Your task to perform on an android device: Clear all items from cart on ebay. Add "razer thresher" to the cart on ebay, then select checkout. Image 0: 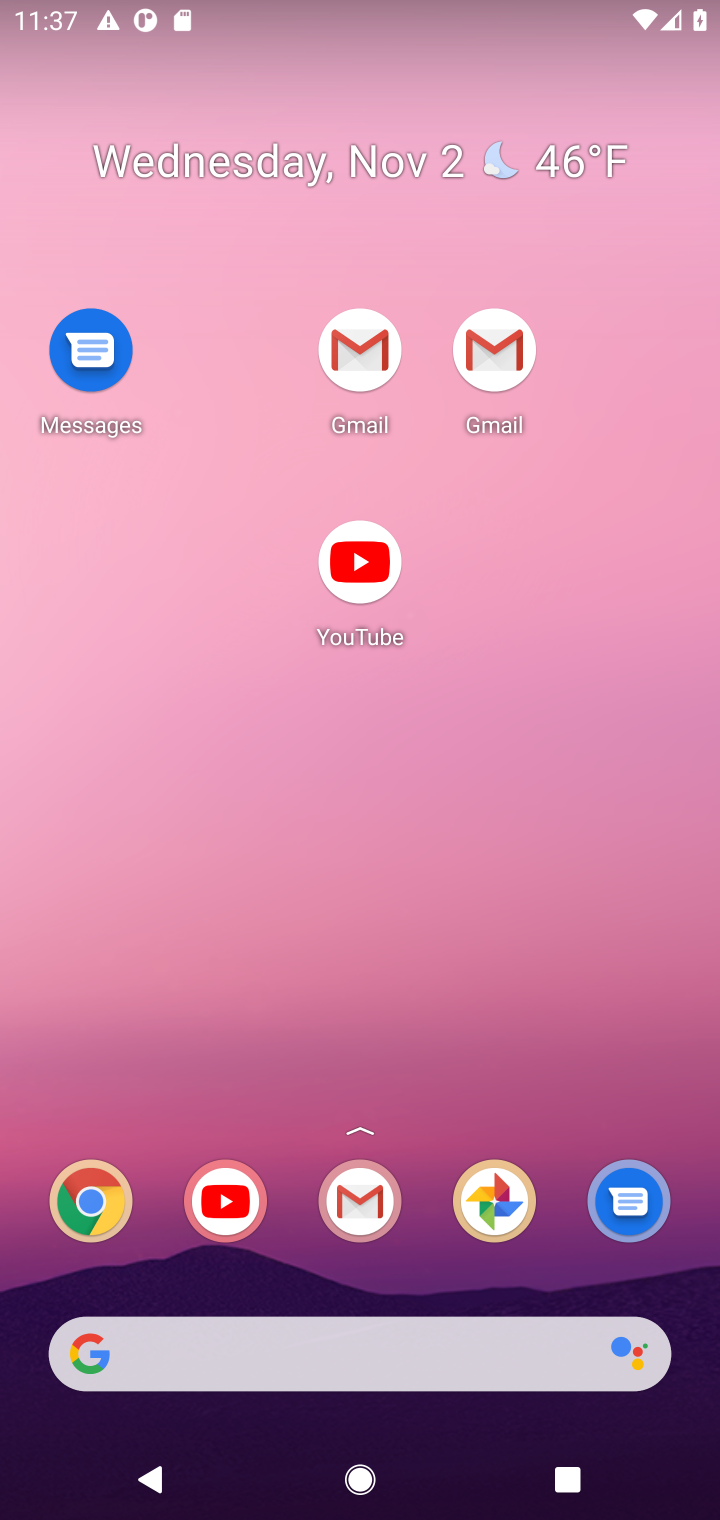
Step 0: drag from (461, 1308) to (403, 654)
Your task to perform on an android device: Clear all items from cart on ebay. Add "razer thresher" to the cart on ebay, then select checkout. Image 1: 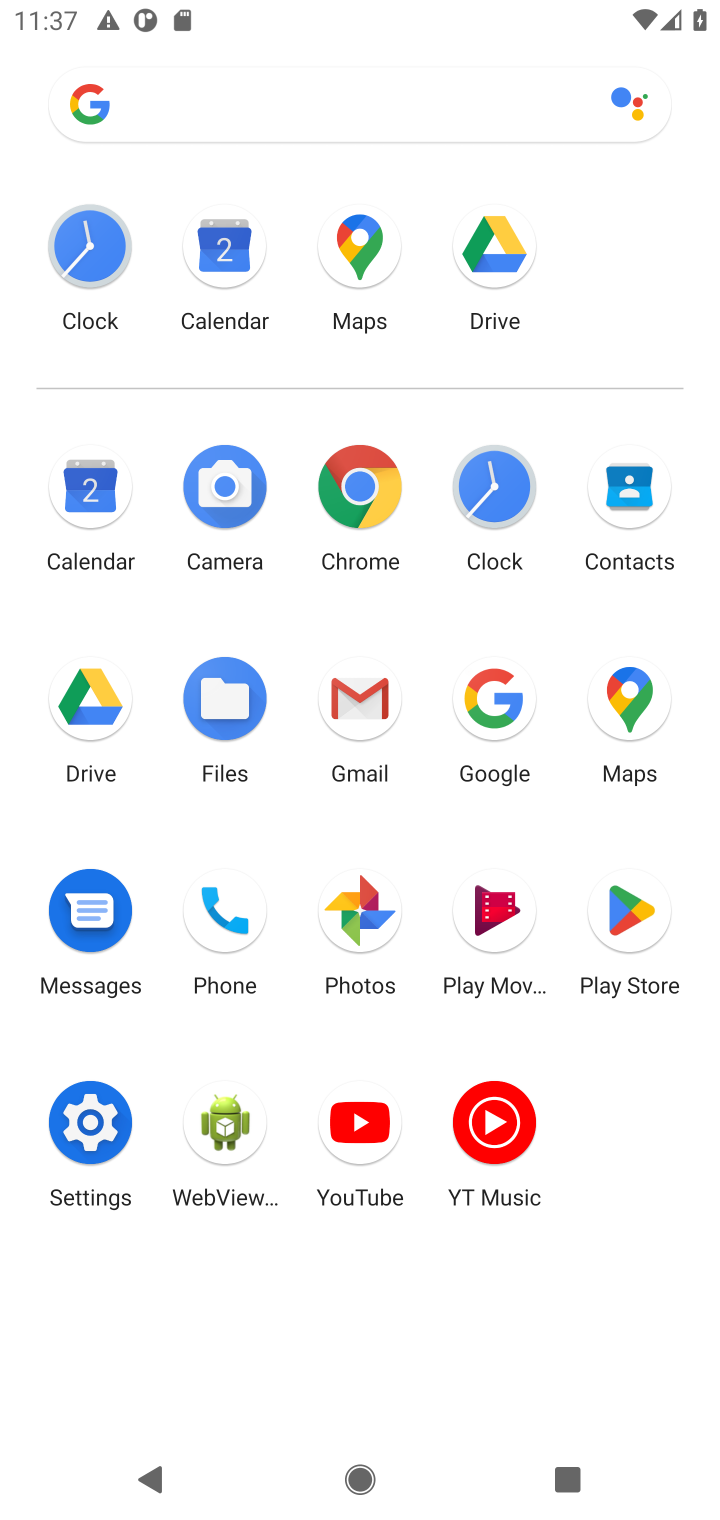
Step 1: click (357, 493)
Your task to perform on an android device: Clear all items from cart on ebay. Add "razer thresher" to the cart on ebay, then select checkout. Image 2: 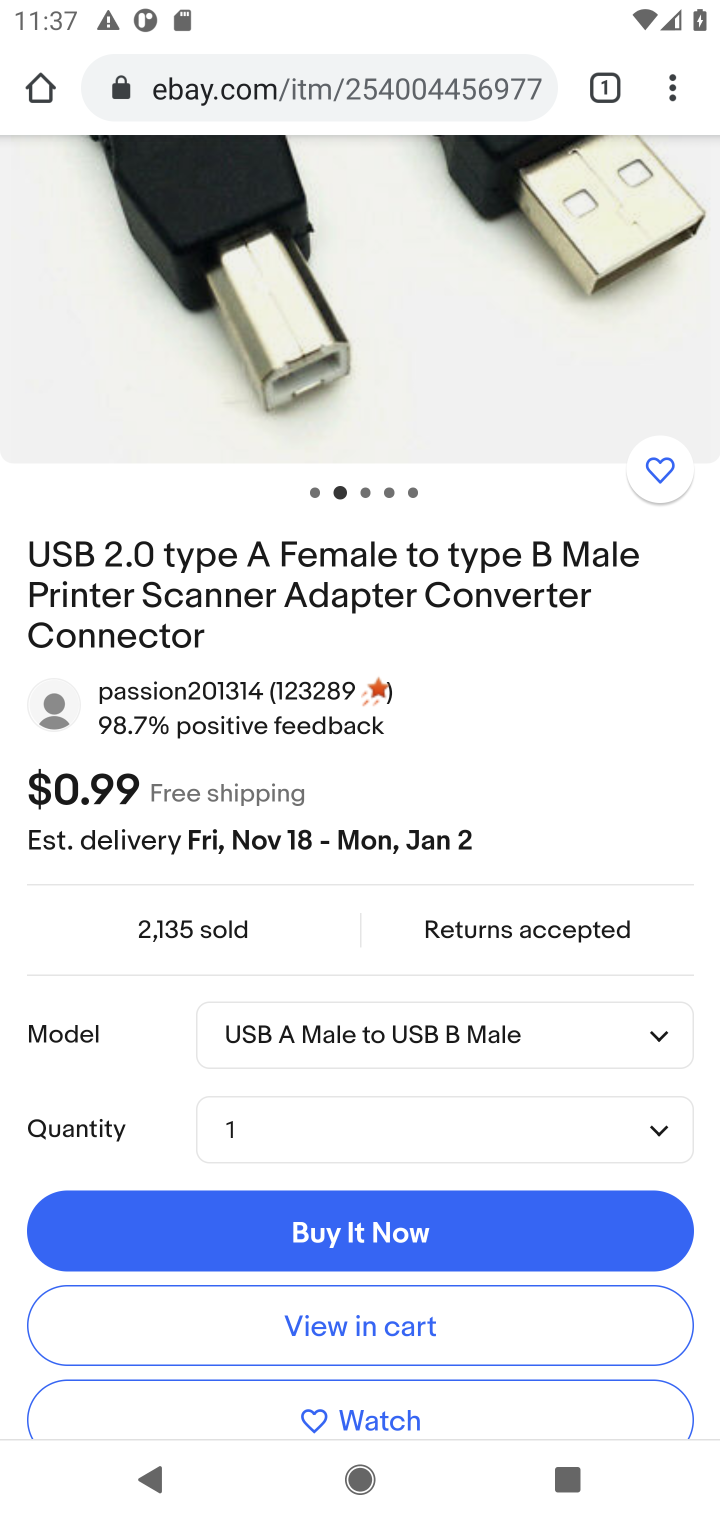
Step 2: click (405, 98)
Your task to perform on an android device: Clear all items from cart on ebay. Add "razer thresher" to the cart on ebay, then select checkout. Image 3: 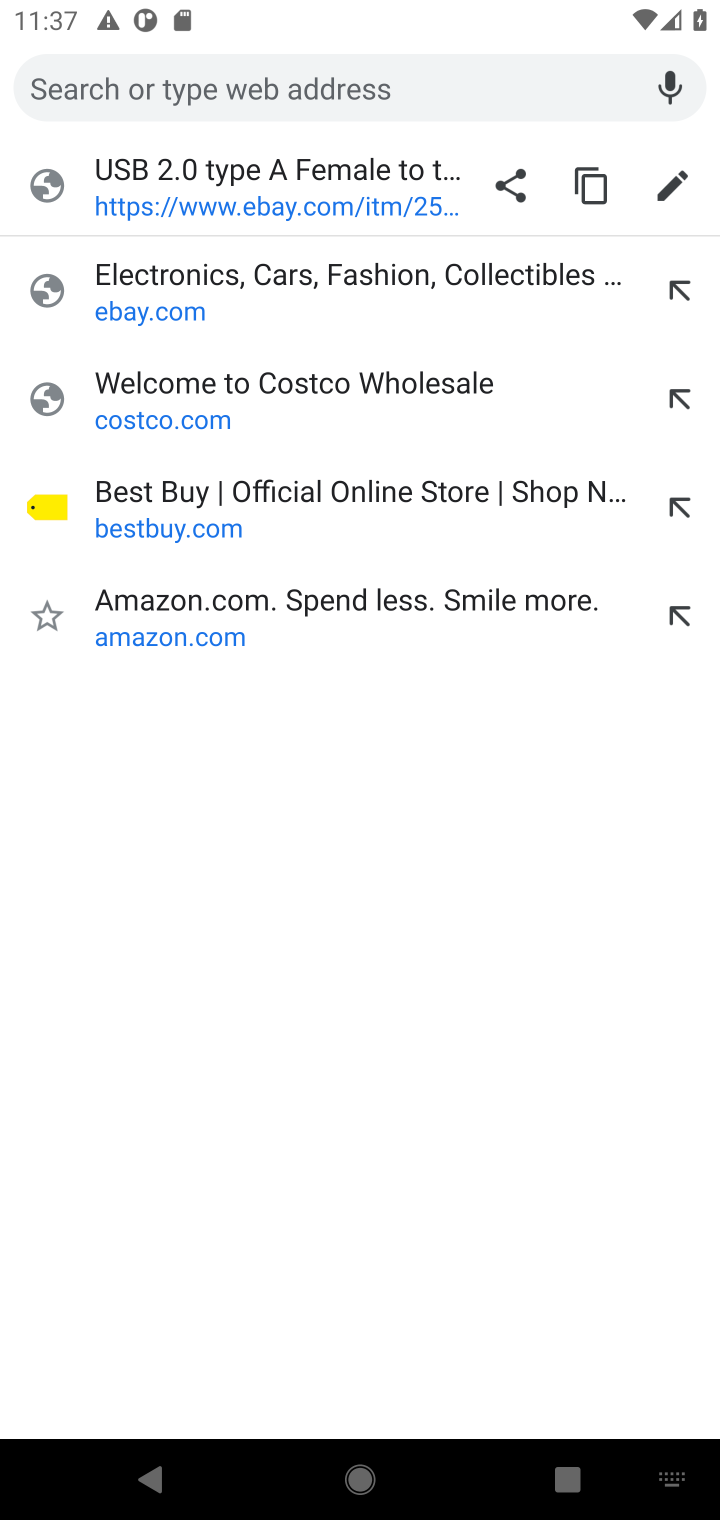
Step 3: type "ebay.com"
Your task to perform on an android device: Clear all items from cart on ebay. Add "razer thresher" to the cart on ebay, then select checkout. Image 4: 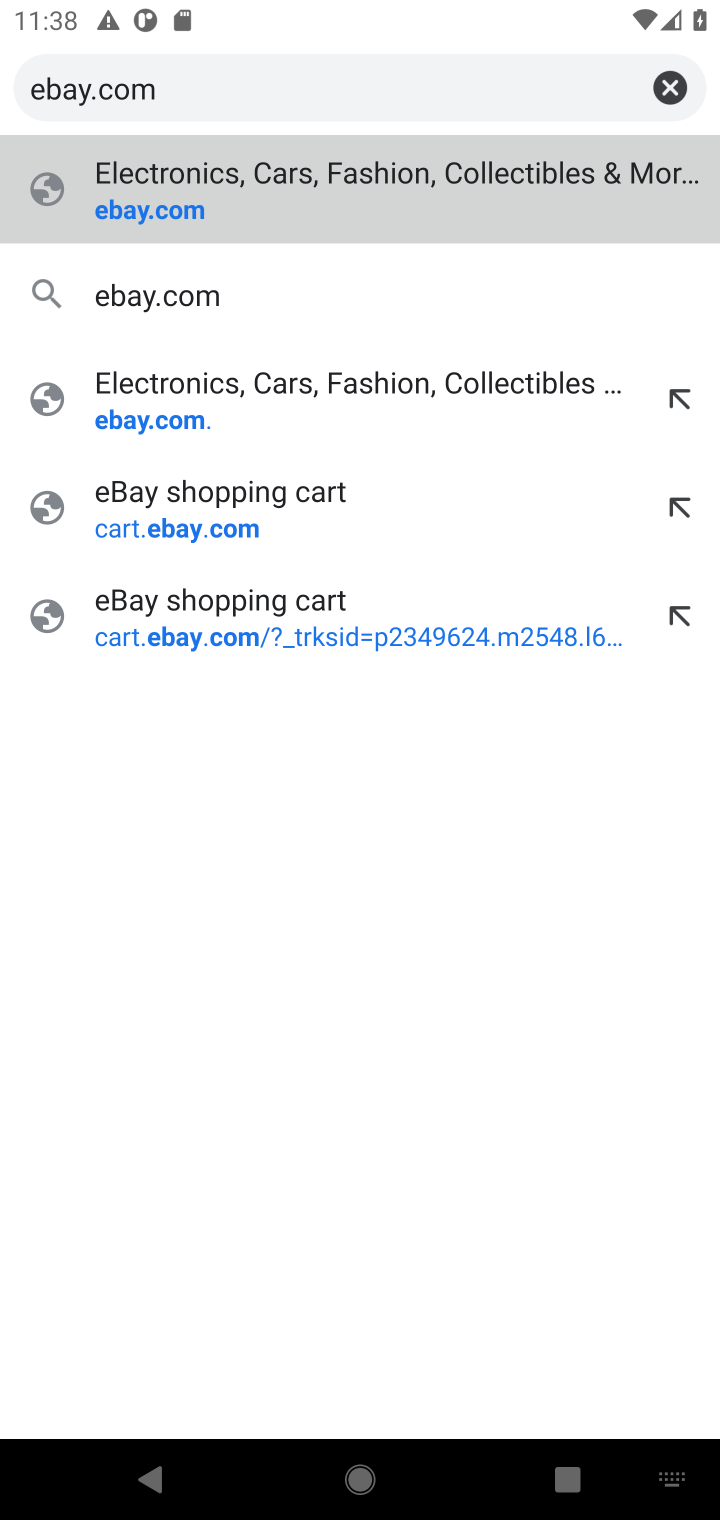
Step 4: press enter
Your task to perform on an android device: Clear all items from cart on ebay. Add "razer thresher" to the cart on ebay, then select checkout. Image 5: 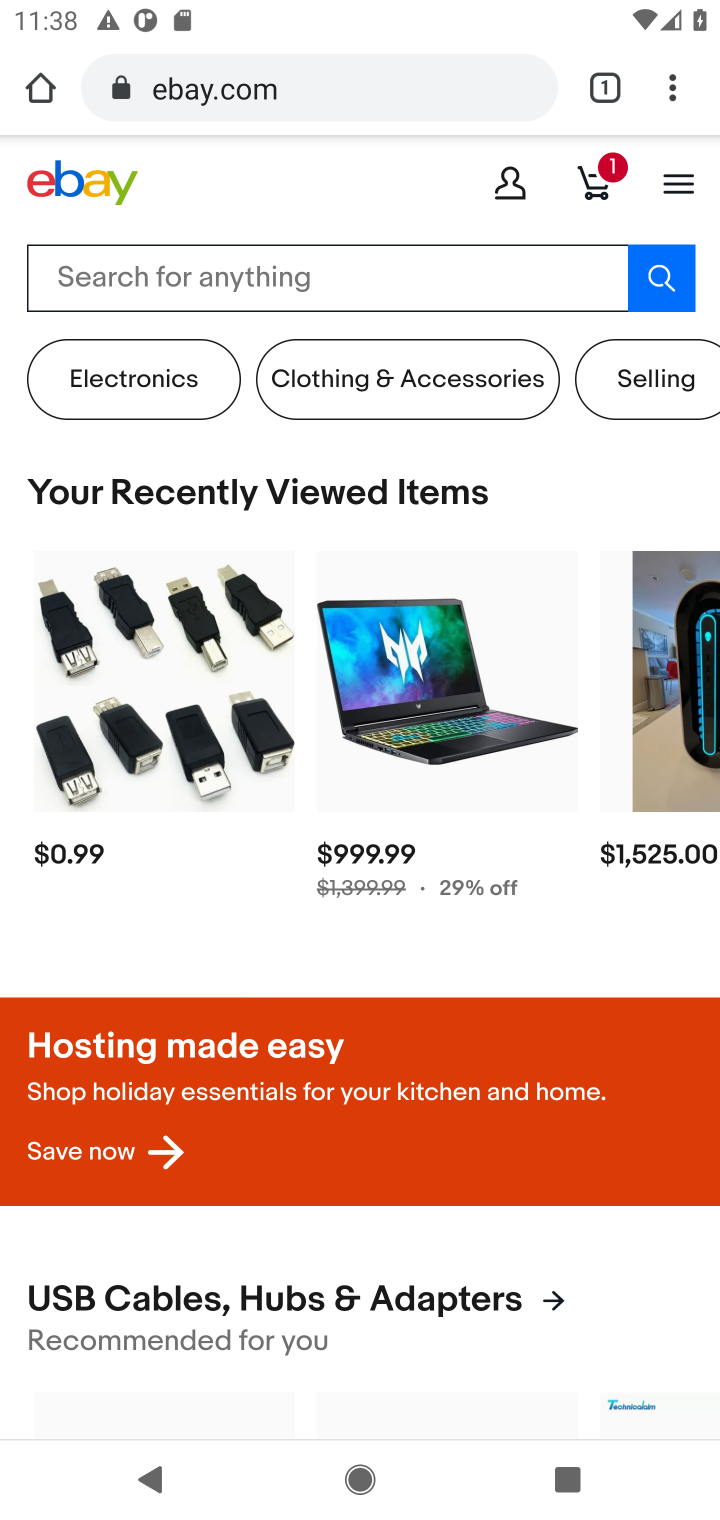
Step 5: click (607, 181)
Your task to perform on an android device: Clear all items from cart on ebay. Add "razer thresher" to the cart on ebay, then select checkout. Image 6: 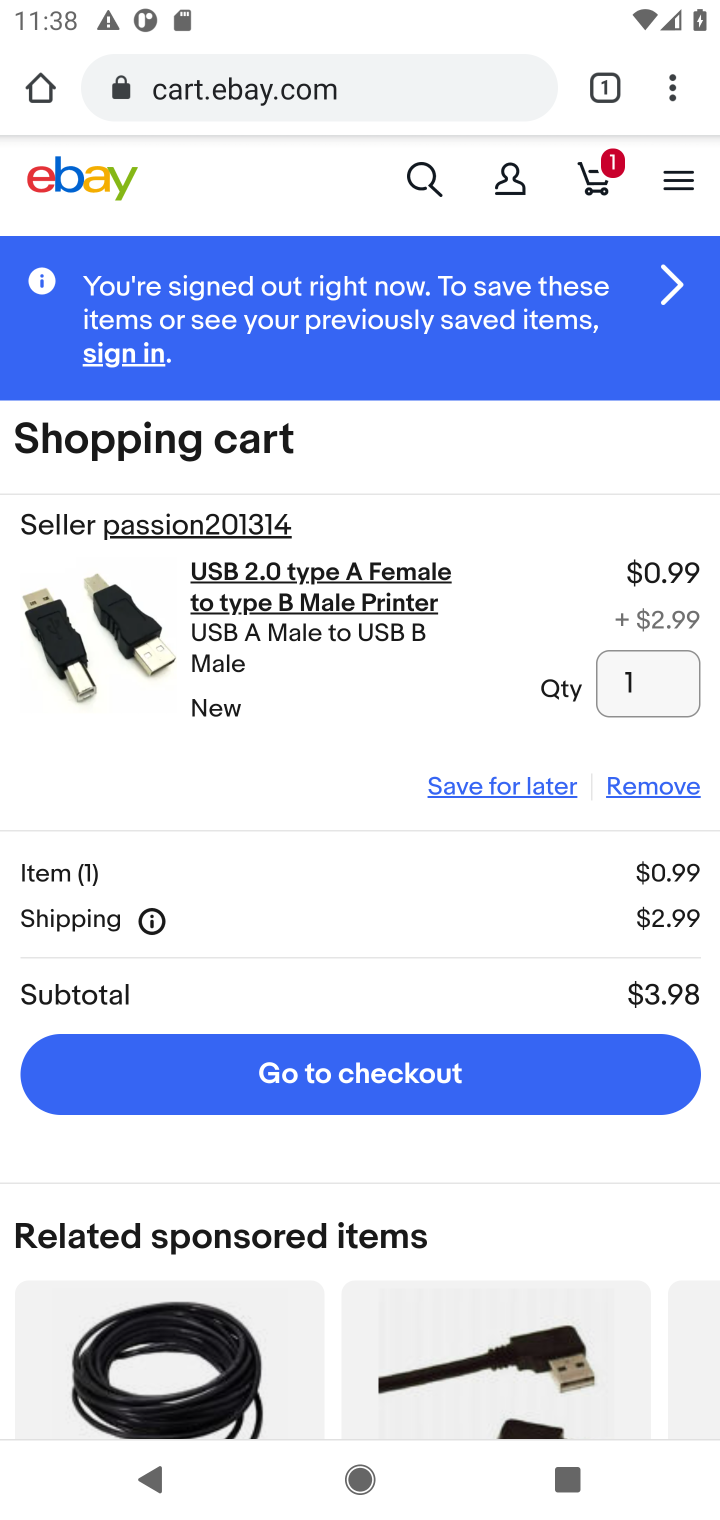
Step 6: click (676, 780)
Your task to perform on an android device: Clear all items from cart on ebay. Add "razer thresher" to the cart on ebay, then select checkout. Image 7: 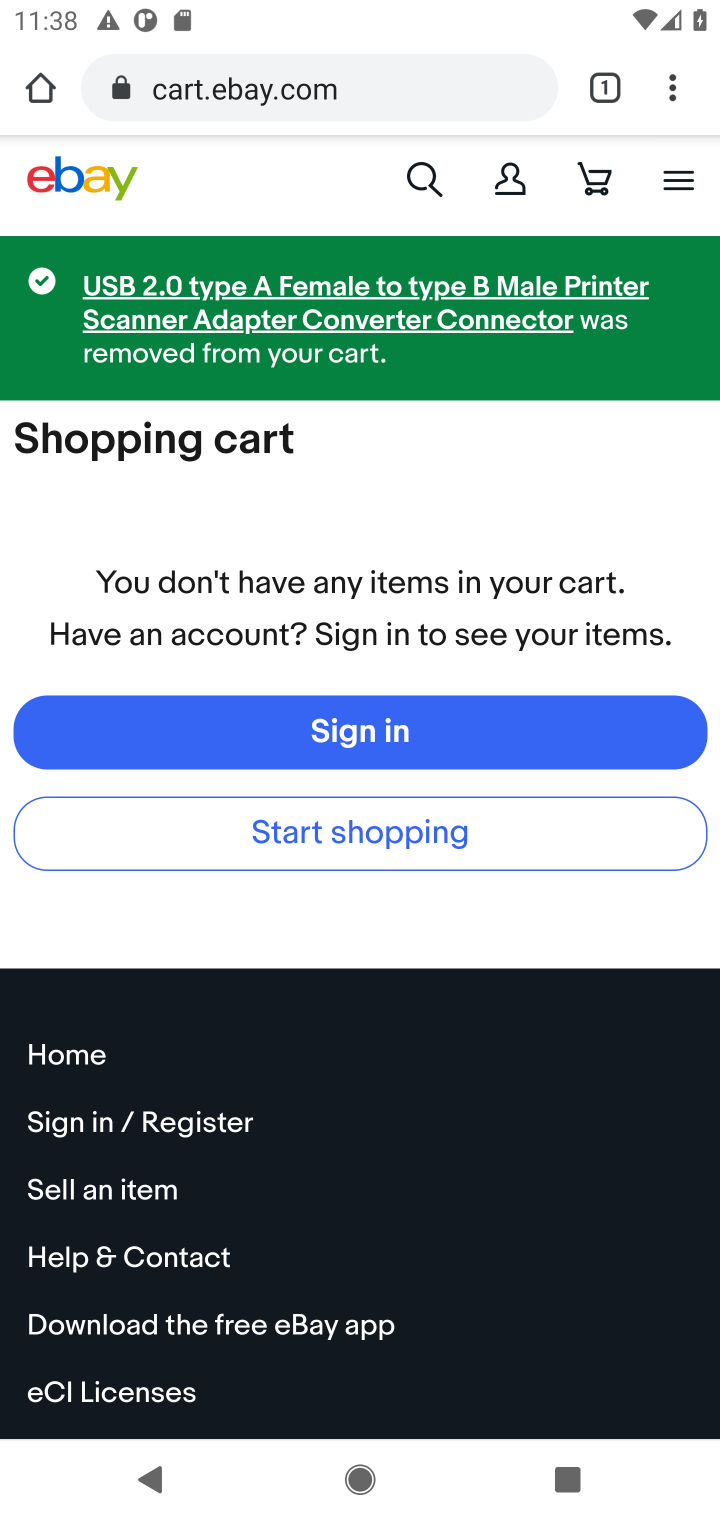
Step 7: click (439, 168)
Your task to perform on an android device: Clear all items from cart on ebay. Add "razer thresher" to the cart on ebay, then select checkout. Image 8: 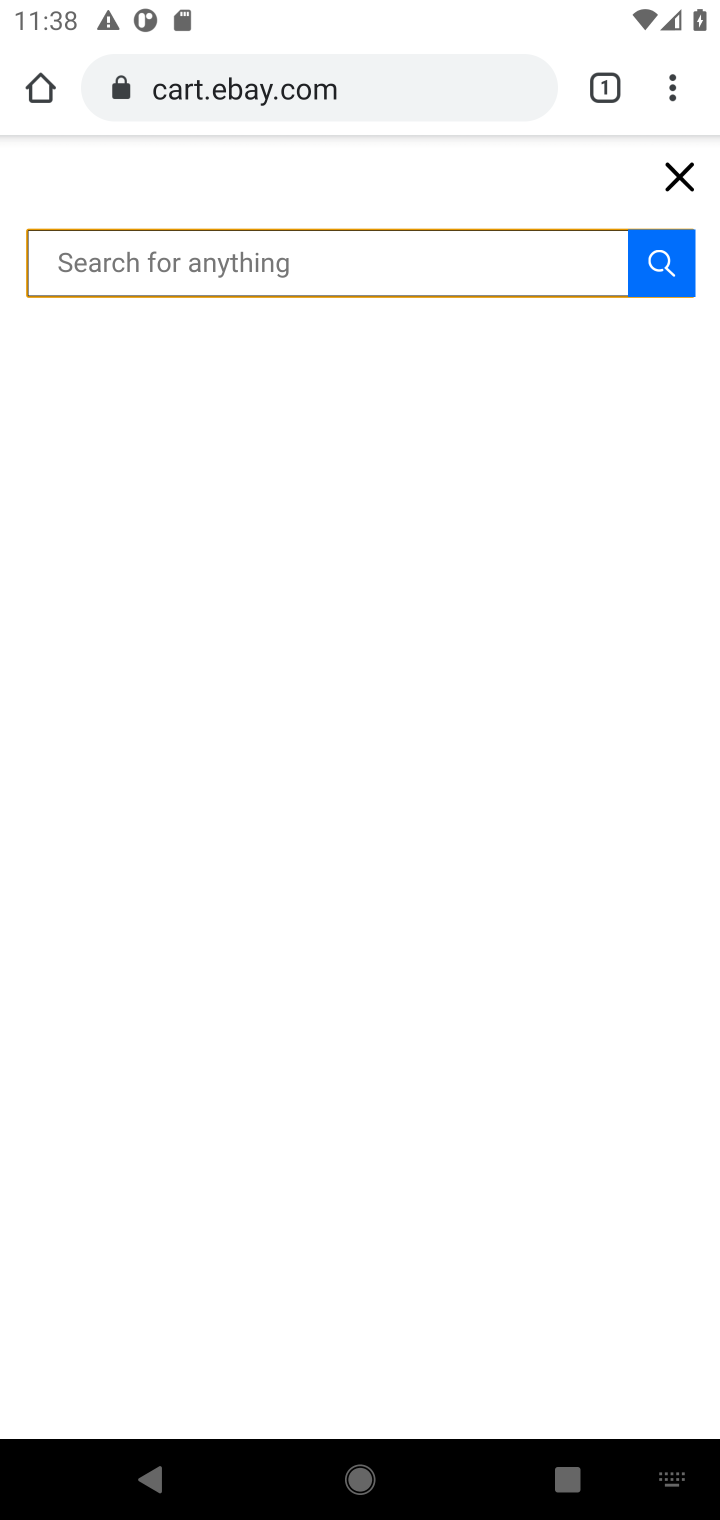
Step 8: type "razer thresher"
Your task to perform on an android device: Clear all items from cart on ebay. Add "razer thresher" to the cart on ebay, then select checkout. Image 9: 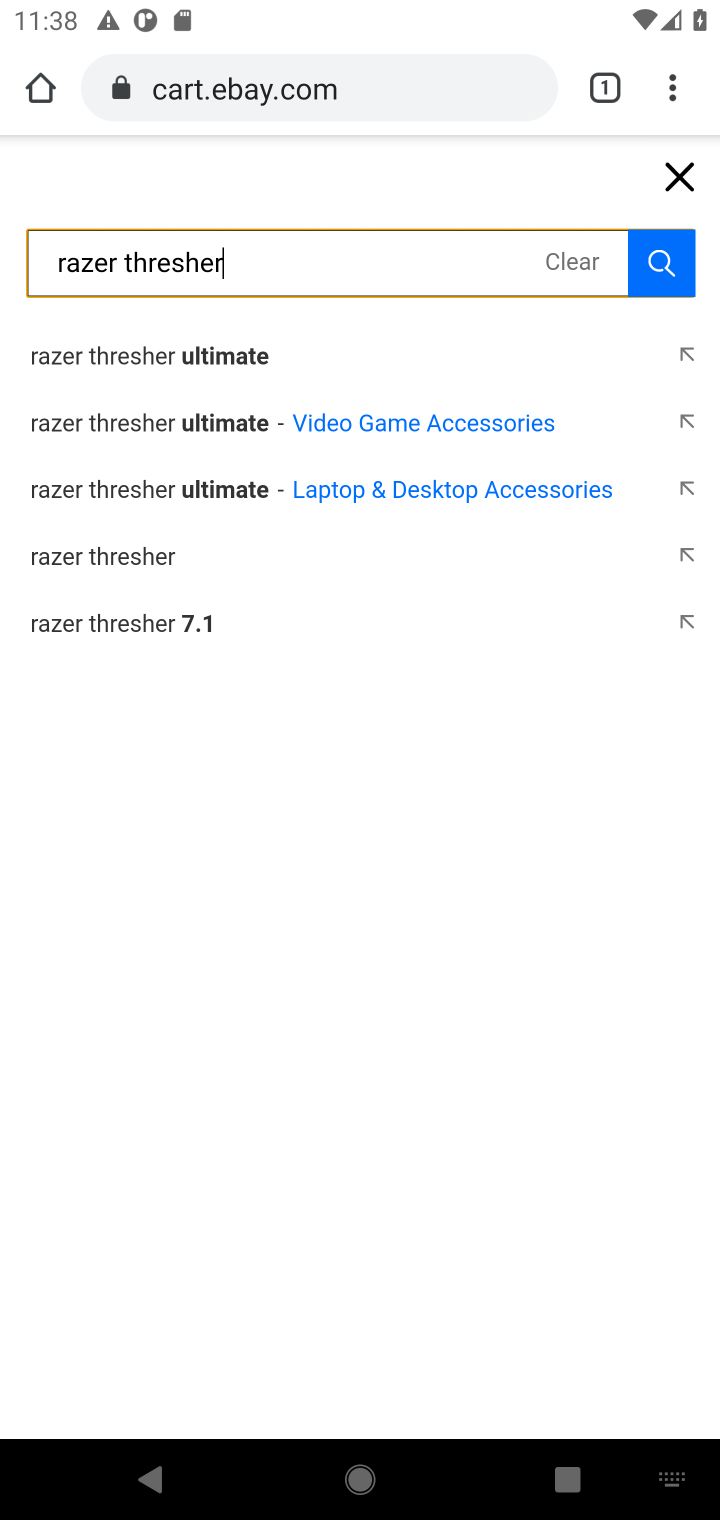
Step 9: press enter
Your task to perform on an android device: Clear all items from cart on ebay. Add "razer thresher" to the cart on ebay, then select checkout. Image 10: 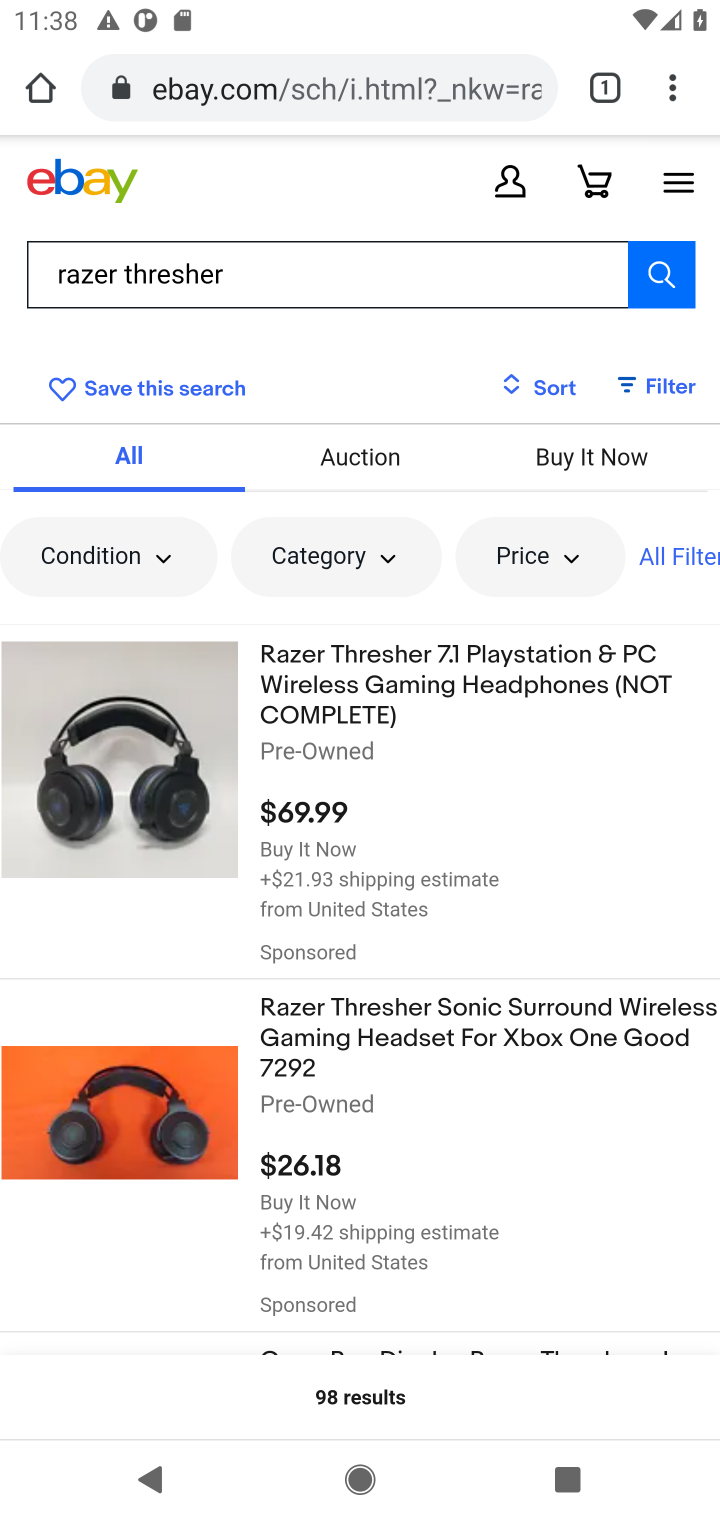
Step 10: click (162, 742)
Your task to perform on an android device: Clear all items from cart on ebay. Add "razer thresher" to the cart on ebay, then select checkout. Image 11: 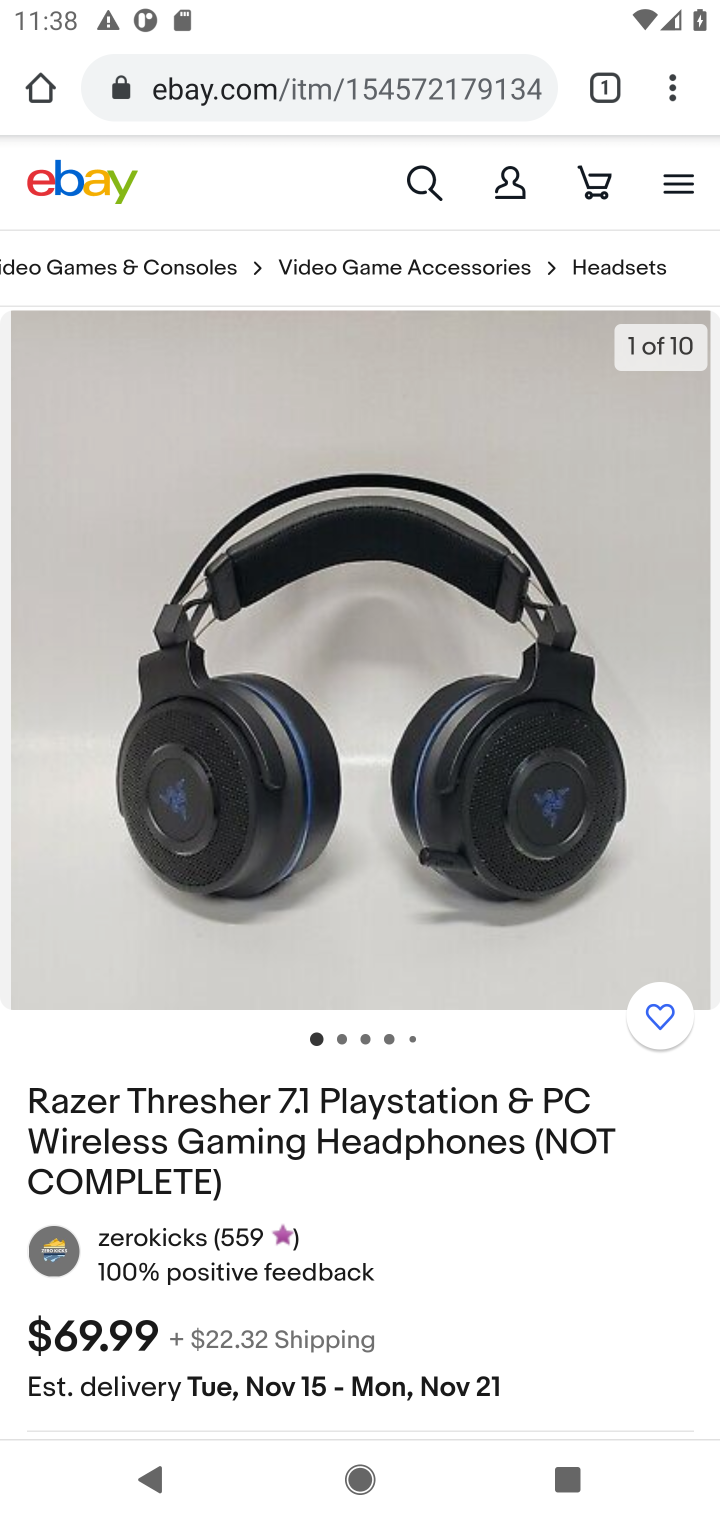
Step 11: drag from (408, 1249) to (331, 663)
Your task to perform on an android device: Clear all items from cart on ebay. Add "razer thresher" to the cart on ebay, then select checkout. Image 12: 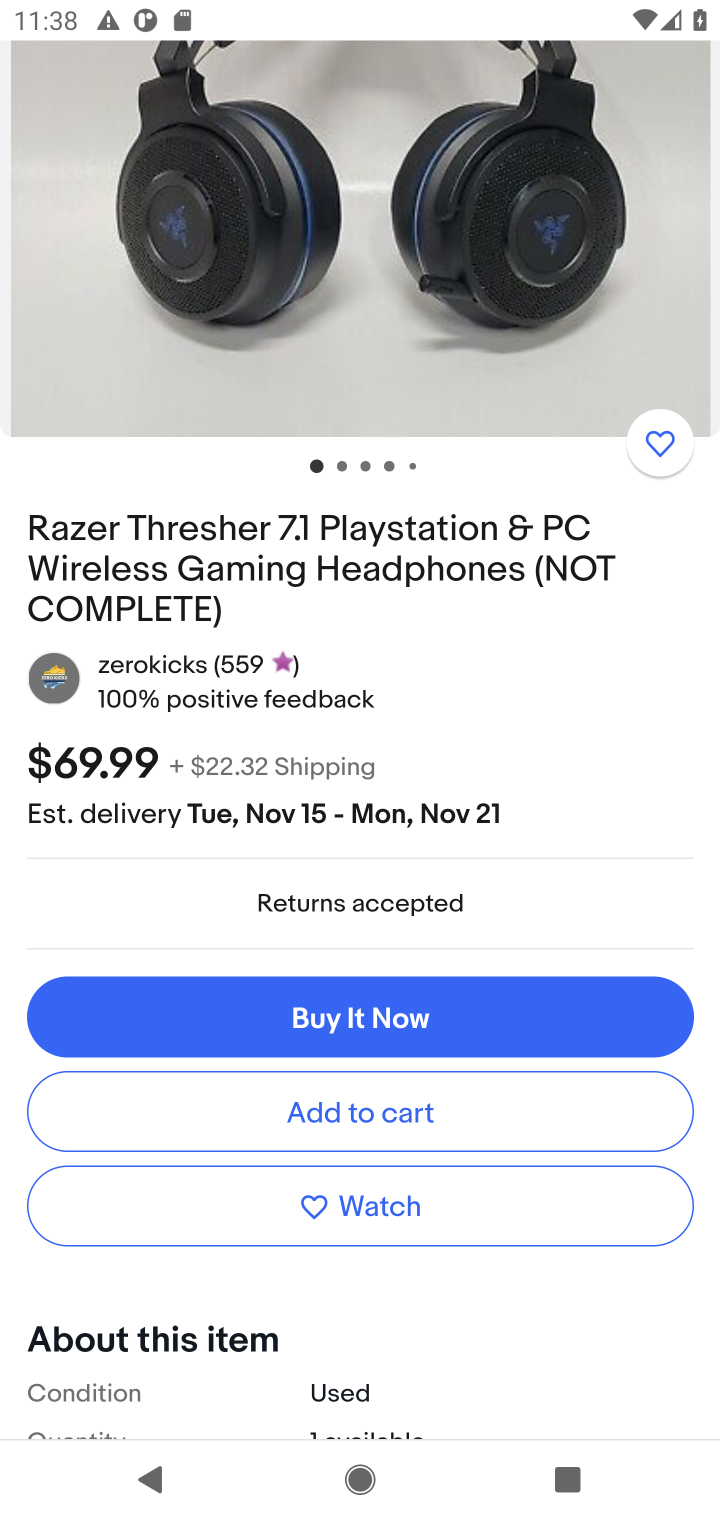
Step 12: click (329, 1109)
Your task to perform on an android device: Clear all items from cart on ebay. Add "razer thresher" to the cart on ebay, then select checkout. Image 13: 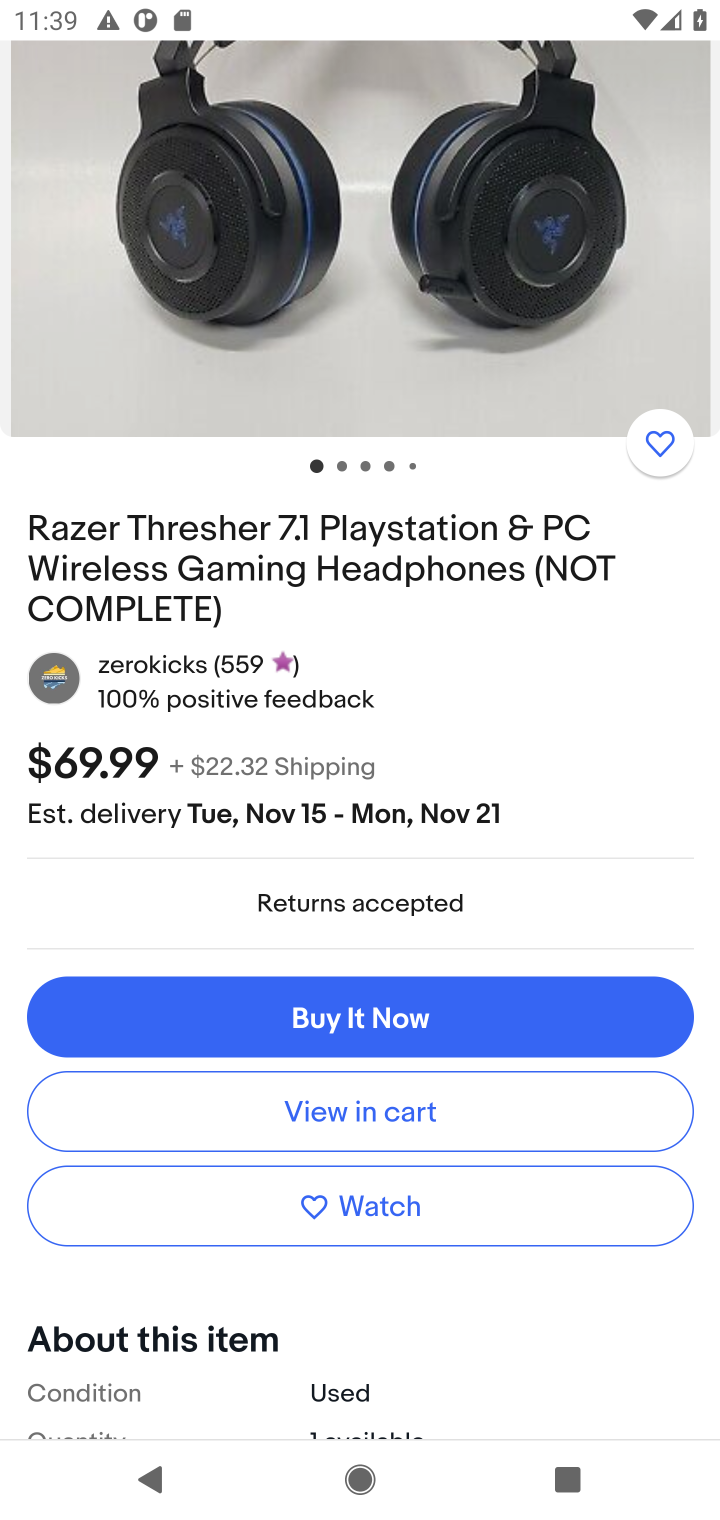
Step 13: click (439, 1104)
Your task to perform on an android device: Clear all items from cart on ebay. Add "razer thresher" to the cart on ebay, then select checkout. Image 14: 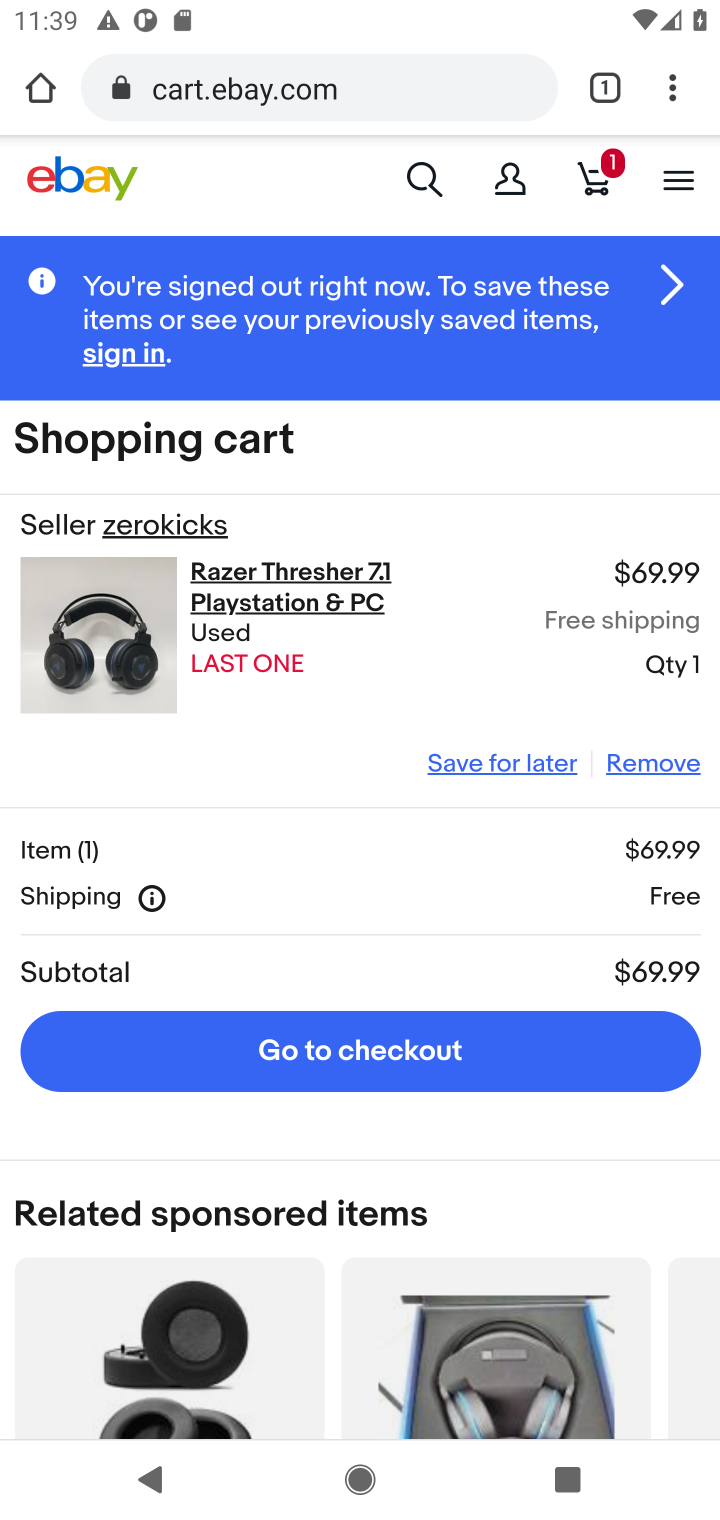
Step 14: click (361, 1084)
Your task to perform on an android device: Clear all items from cart on ebay. Add "razer thresher" to the cart on ebay, then select checkout. Image 15: 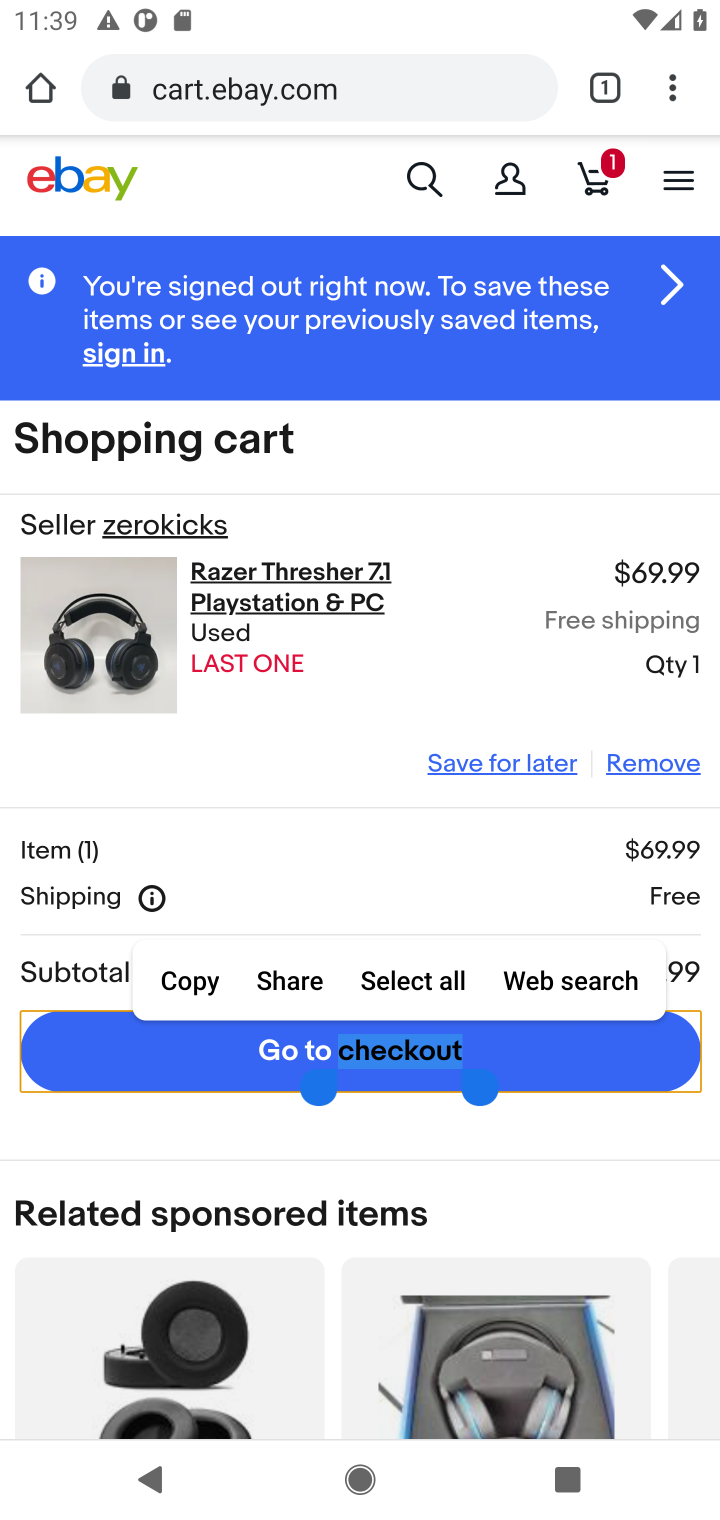
Step 15: click (344, 1071)
Your task to perform on an android device: Clear all items from cart on ebay. Add "razer thresher" to the cart on ebay, then select checkout. Image 16: 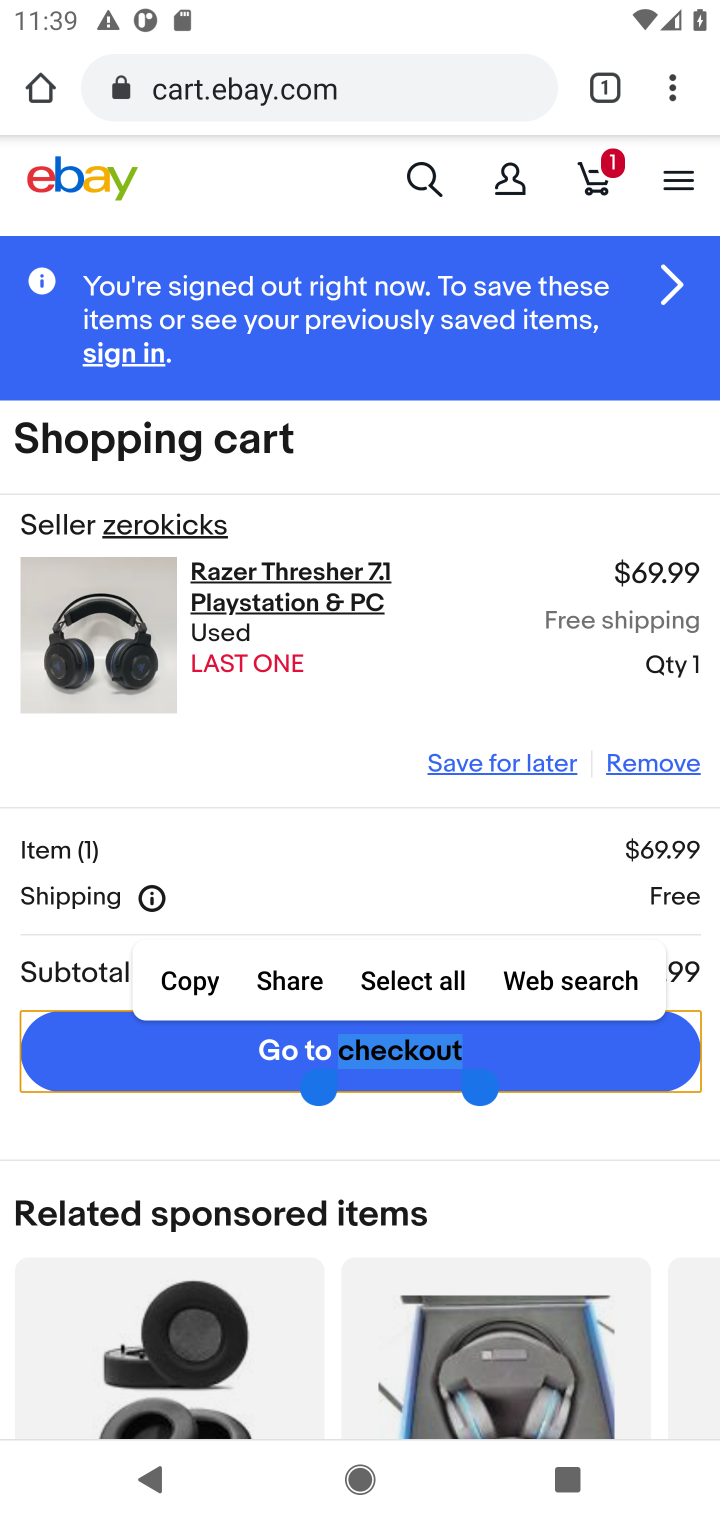
Step 16: click (285, 1036)
Your task to perform on an android device: Clear all items from cart on ebay. Add "razer thresher" to the cart on ebay, then select checkout. Image 17: 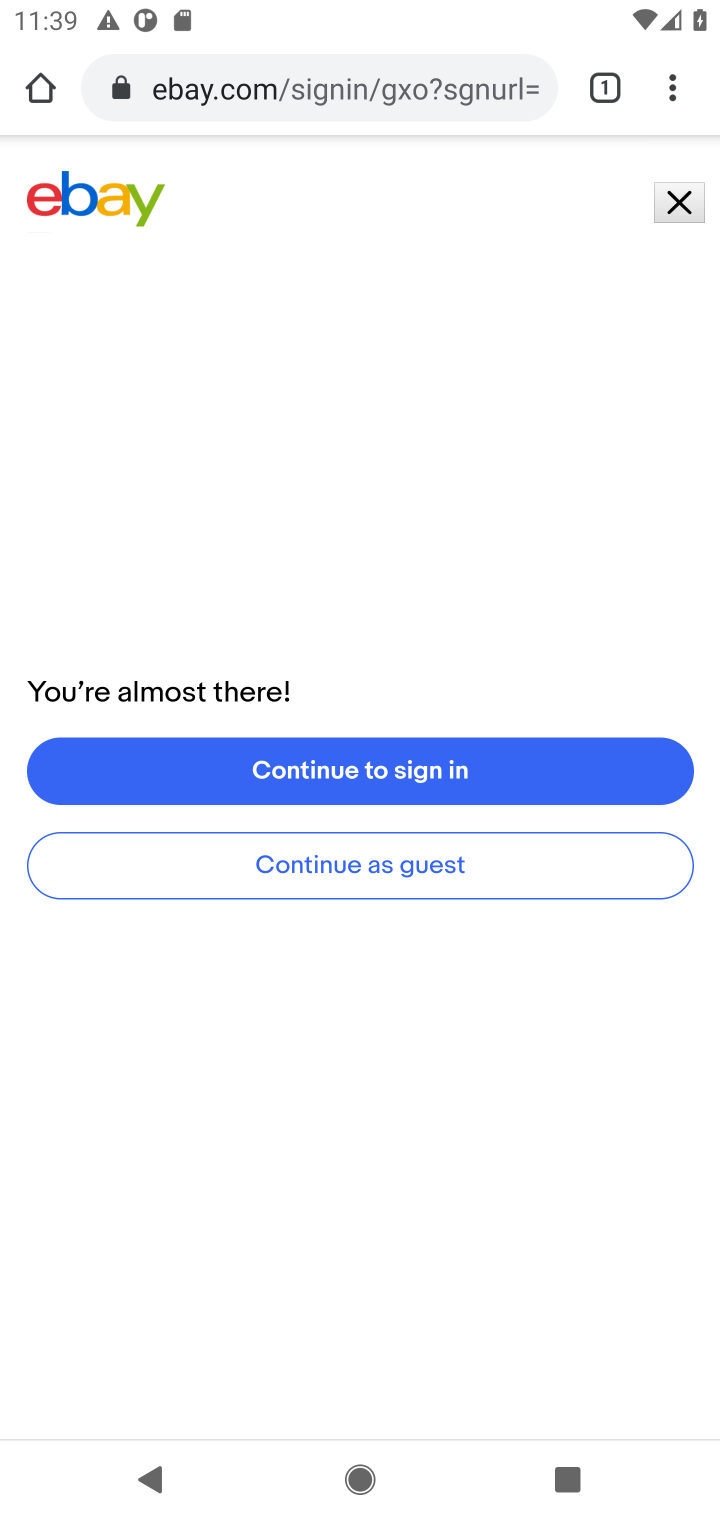
Step 17: task complete